Your task to perform on an android device: Search for pizza restaurants on Maps Image 0: 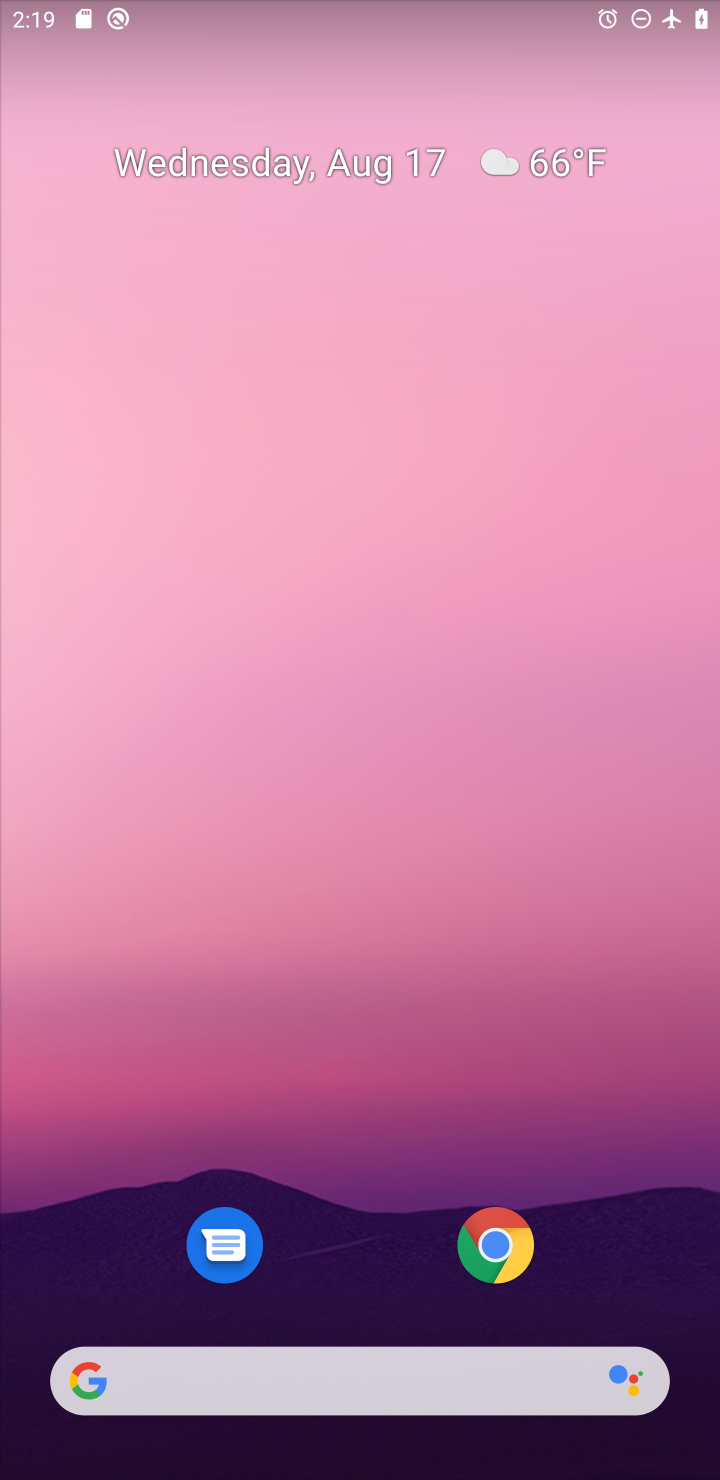
Step 0: drag from (380, 1285) to (378, 146)
Your task to perform on an android device: Search for pizza restaurants on Maps Image 1: 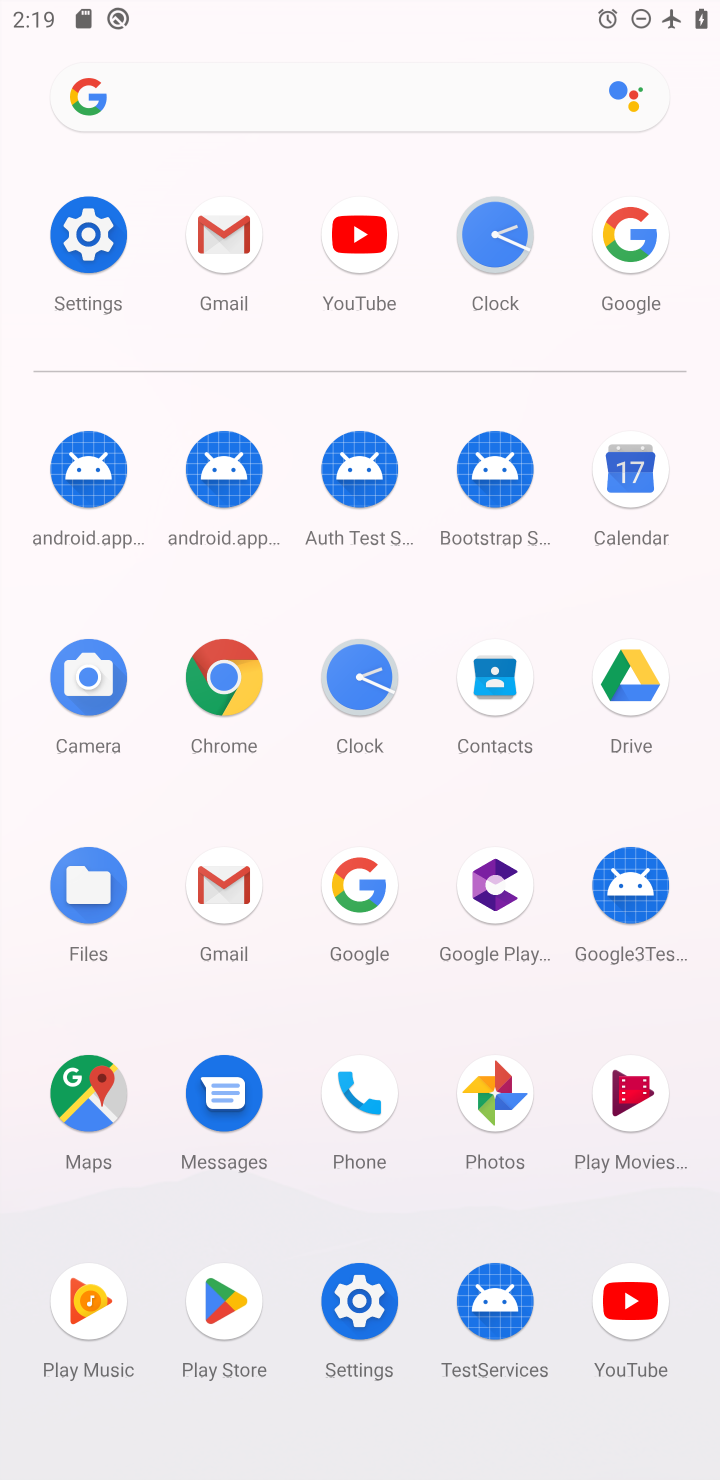
Step 1: click (97, 1090)
Your task to perform on an android device: Search for pizza restaurants on Maps Image 2: 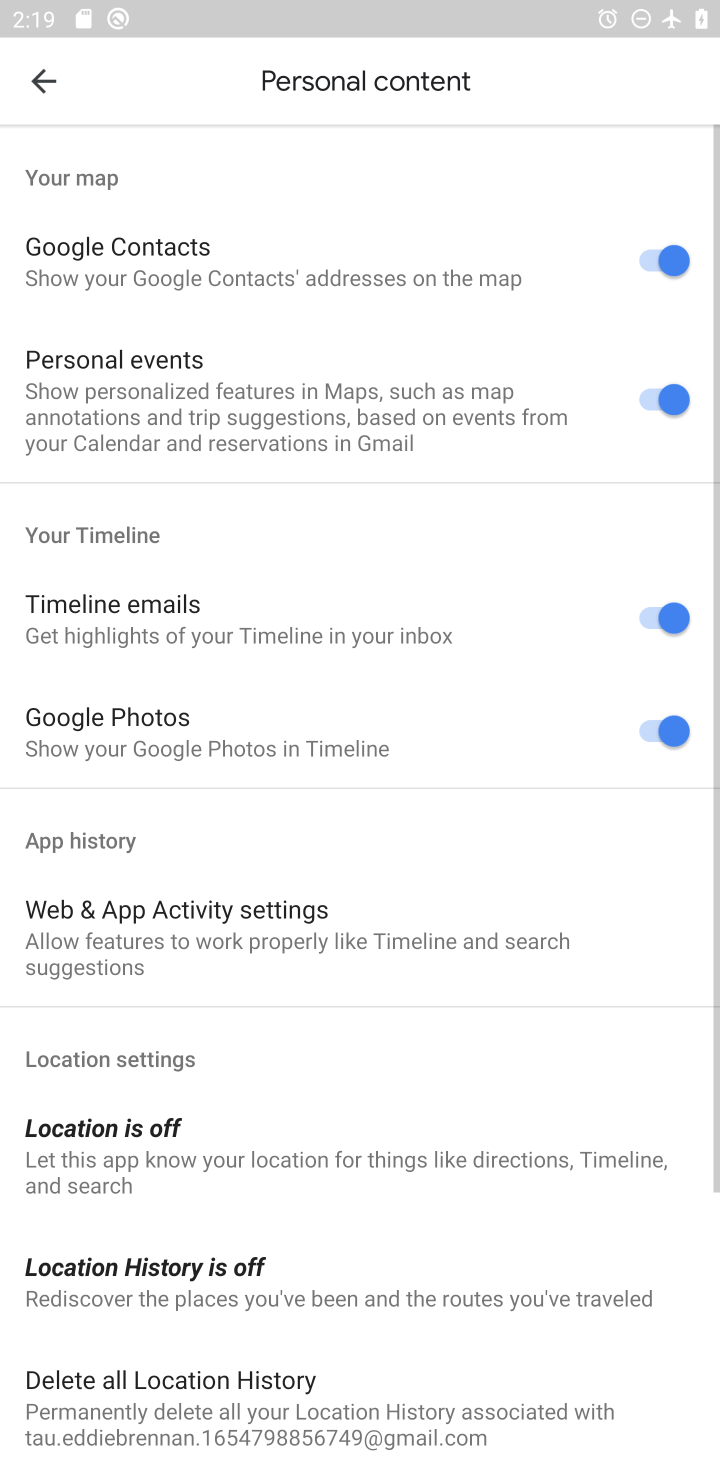
Step 2: click (45, 73)
Your task to perform on an android device: Search for pizza restaurants on Maps Image 3: 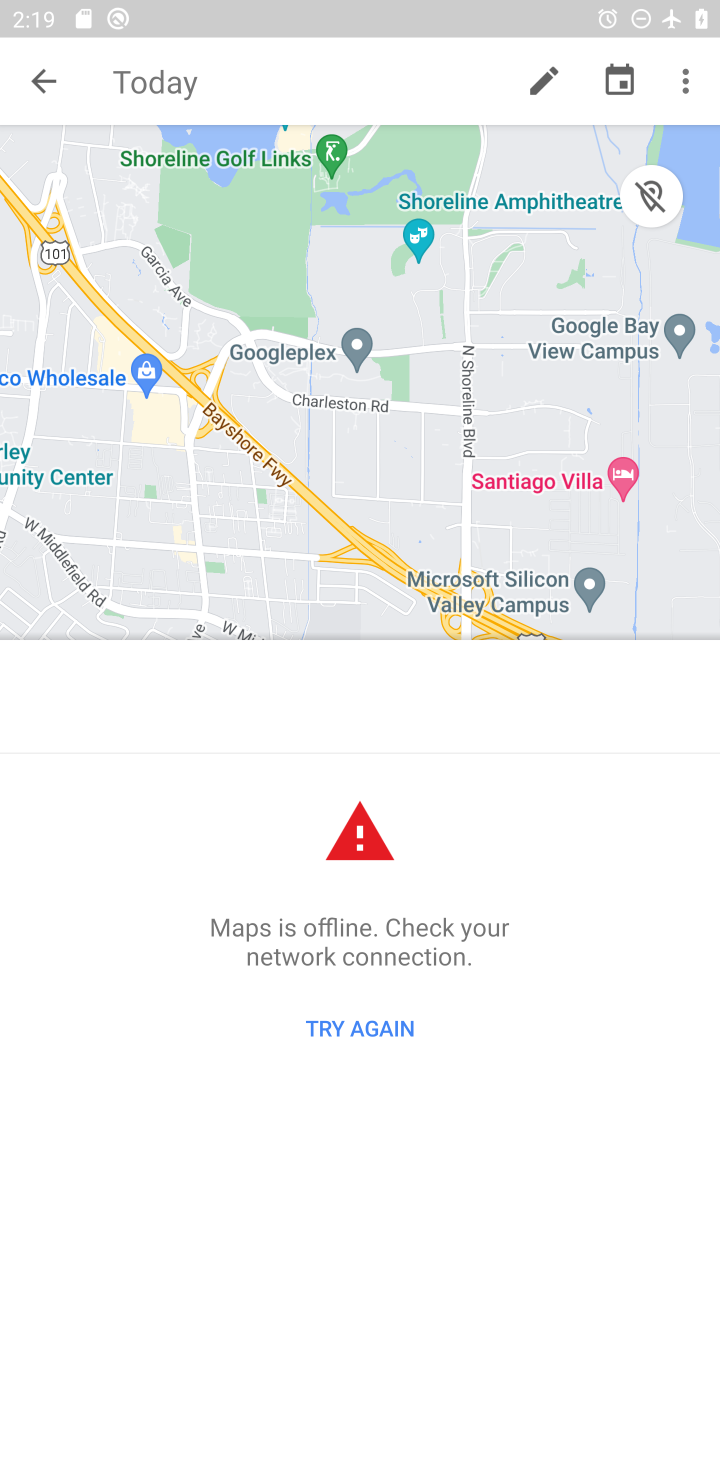
Step 3: click (45, 73)
Your task to perform on an android device: Search for pizza restaurants on Maps Image 4: 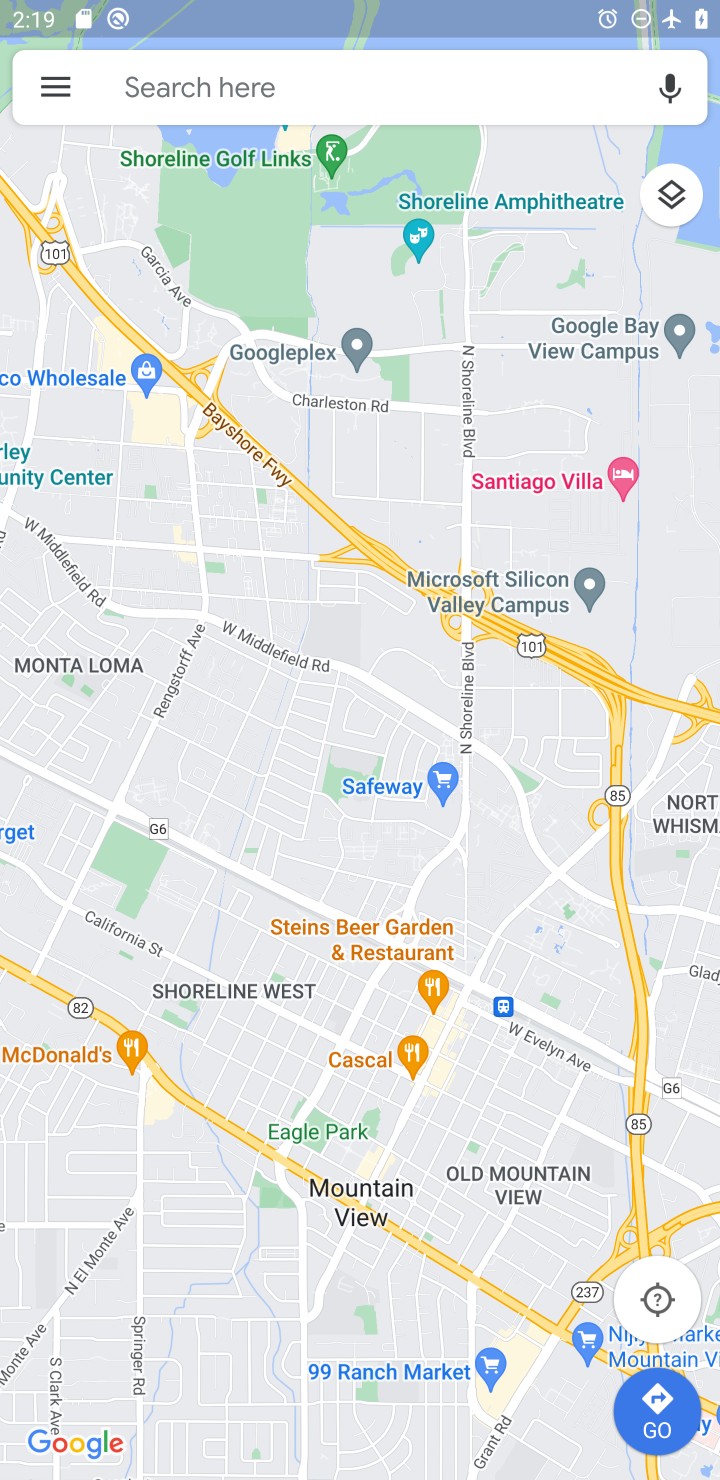
Step 4: click (358, 80)
Your task to perform on an android device: Search for pizza restaurants on Maps Image 5: 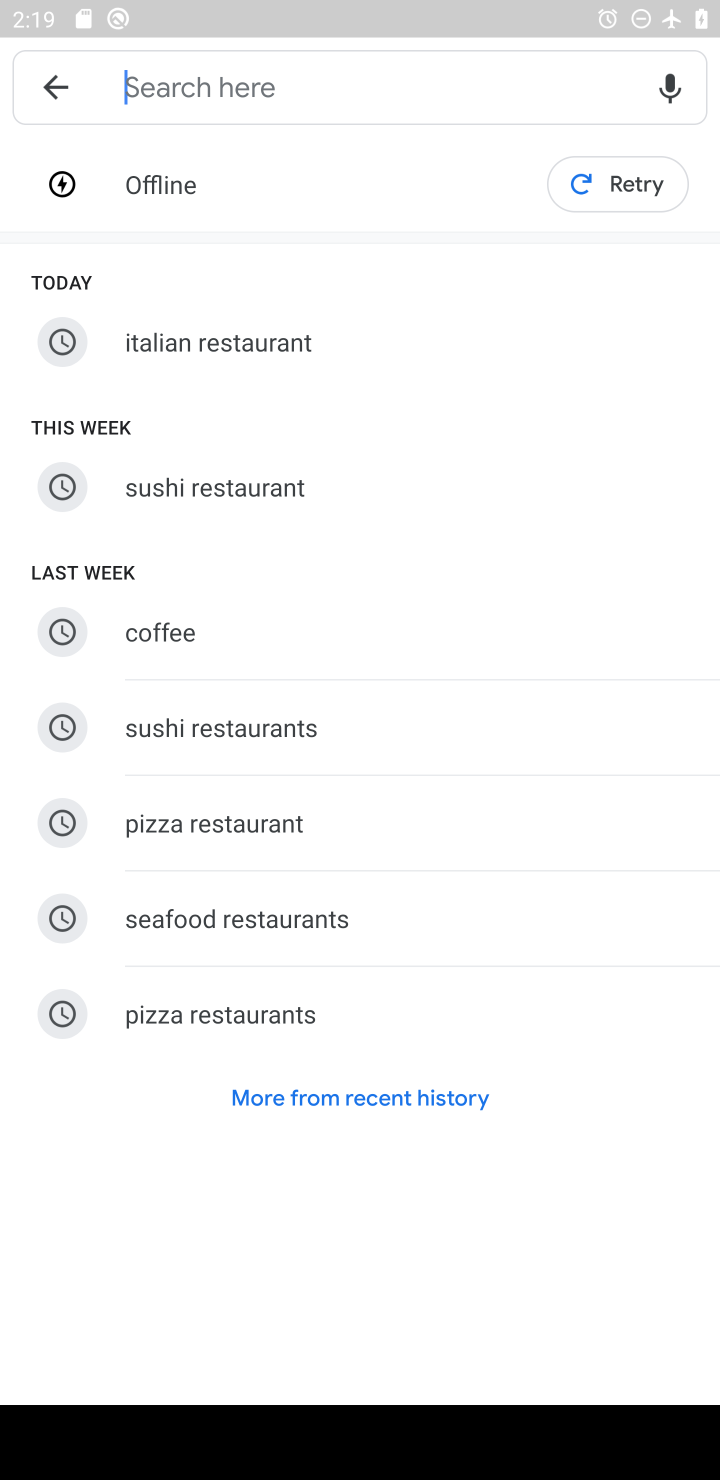
Step 5: type "Pizza restaurants"
Your task to perform on an android device: Search for pizza restaurants on Maps Image 6: 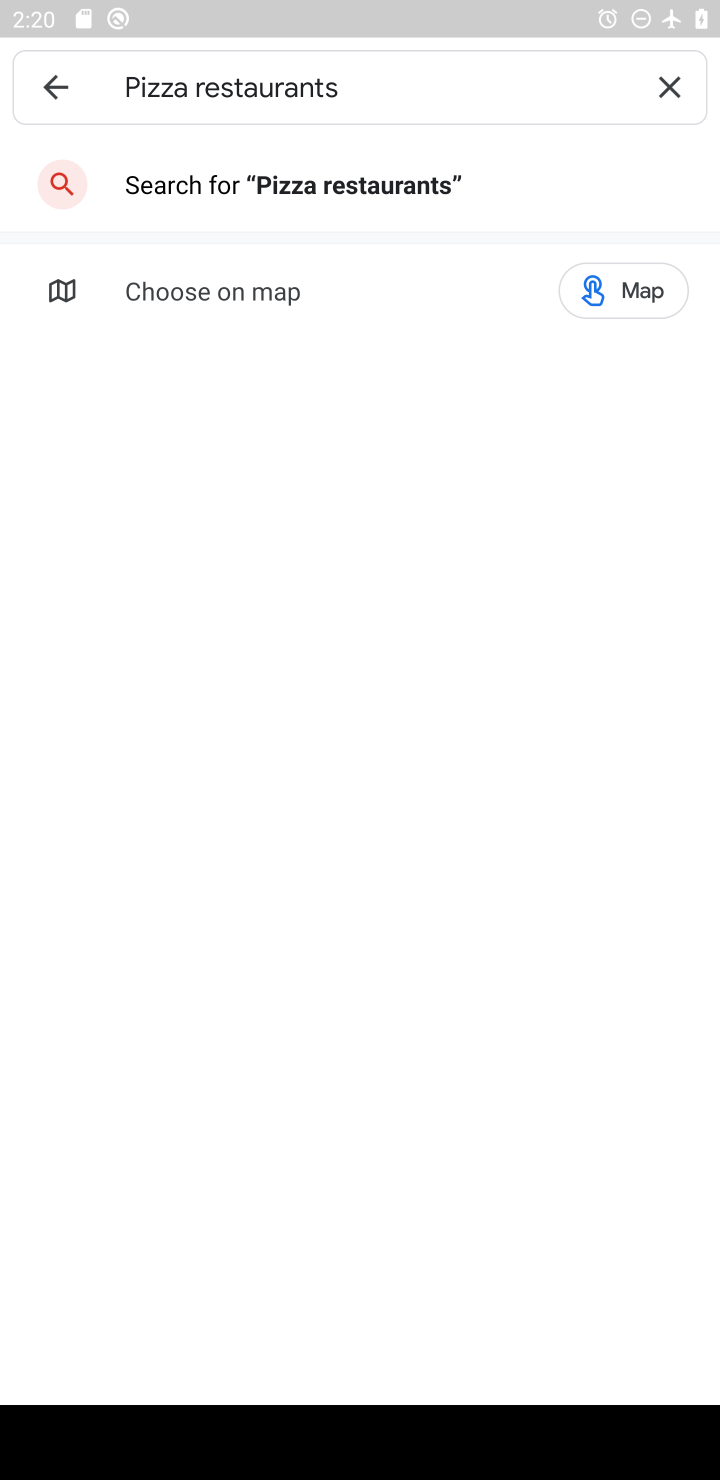
Step 6: click (357, 188)
Your task to perform on an android device: Search for pizza restaurants on Maps Image 7: 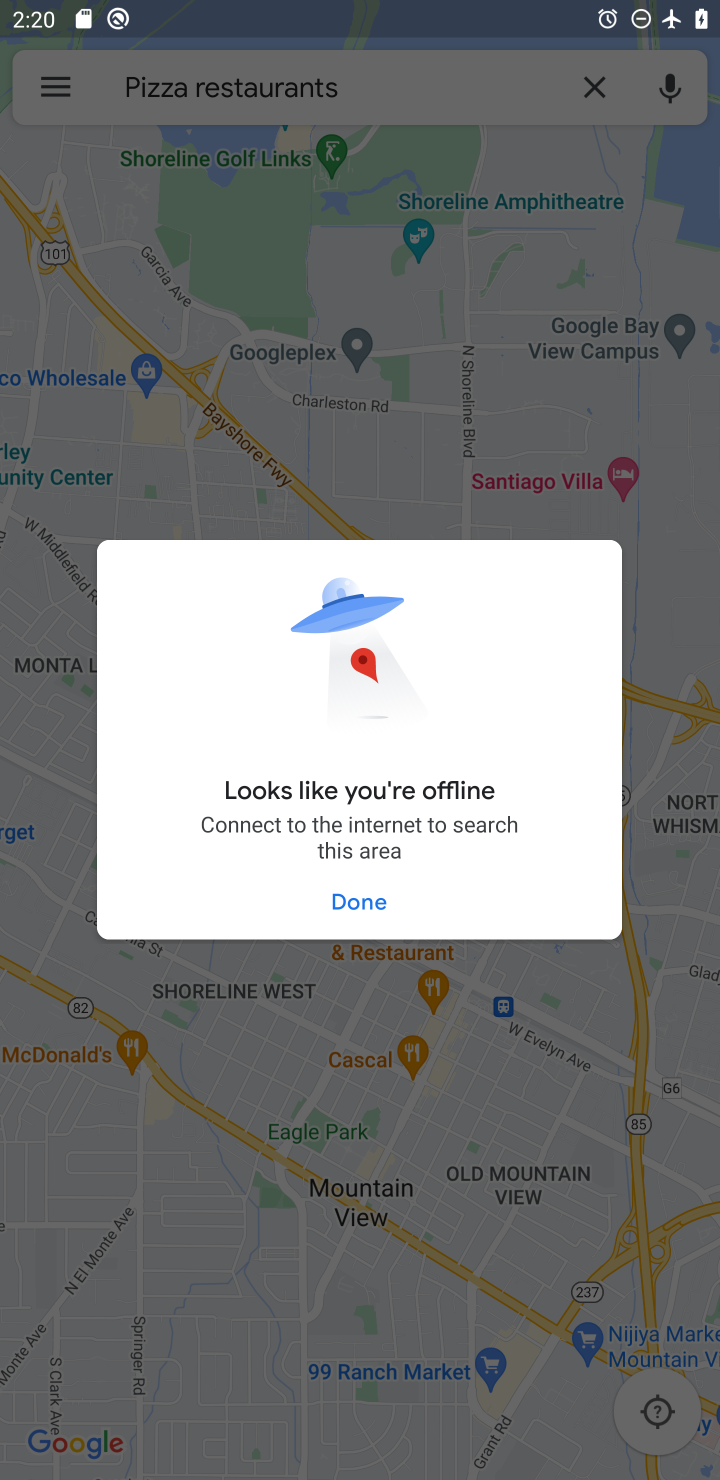
Step 7: task complete